Your task to perform on an android device: allow notifications from all sites in the chrome app Image 0: 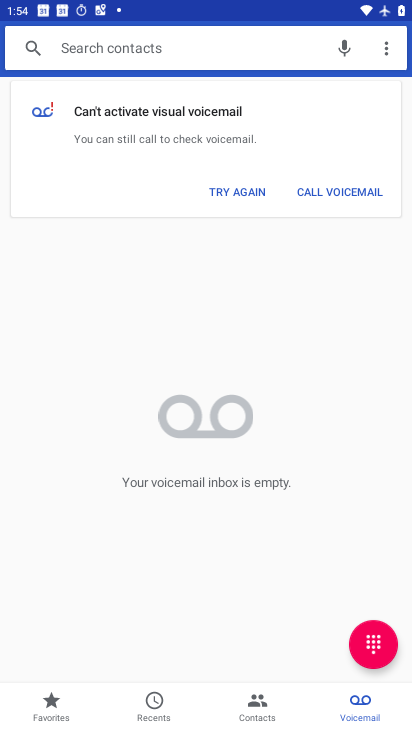
Step 0: press home button
Your task to perform on an android device: allow notifications from all sites in the chrome app Image 1: 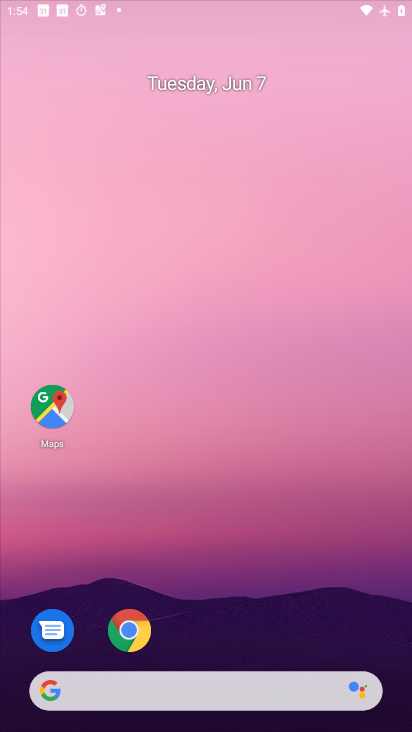
Step 1: drag from (342, 628) to (351, 27)
Your task to perform on an android device: allow notifications from all sites in the chrome app Image 2: 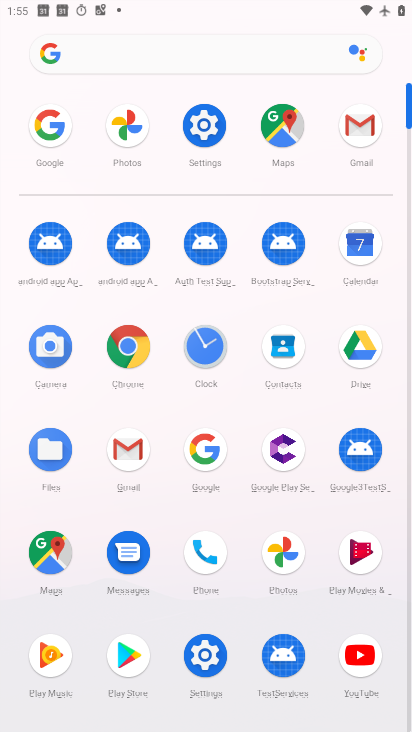
Step 2: click (141, 346)
Your task to perform on an android device: allow notifications from all sites in the chrome app Image 3: 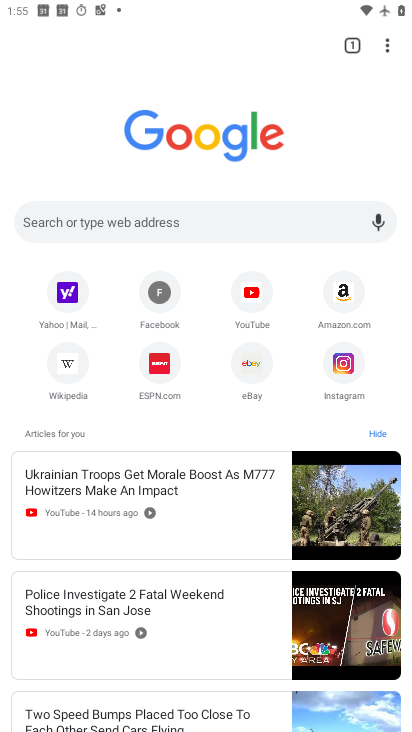
Step 3: click (385, 45)
Your task to perform on an android device: allow notifications from all sites in the chrome app Image 4: 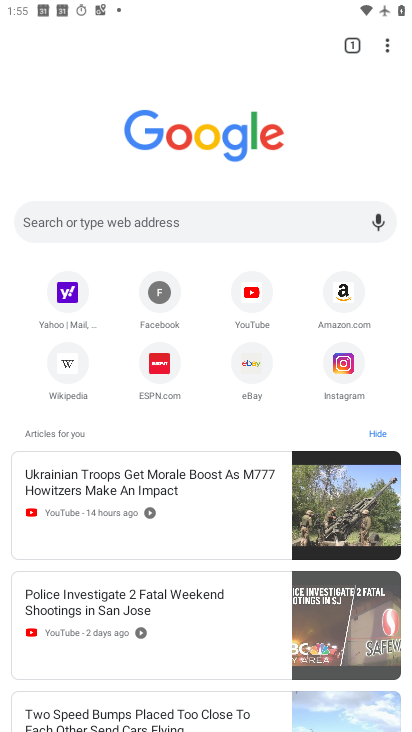
Step 4: click (389, 36)
Your task to perform on an android device: allow notifications from all sites in the chrome app Image 5: 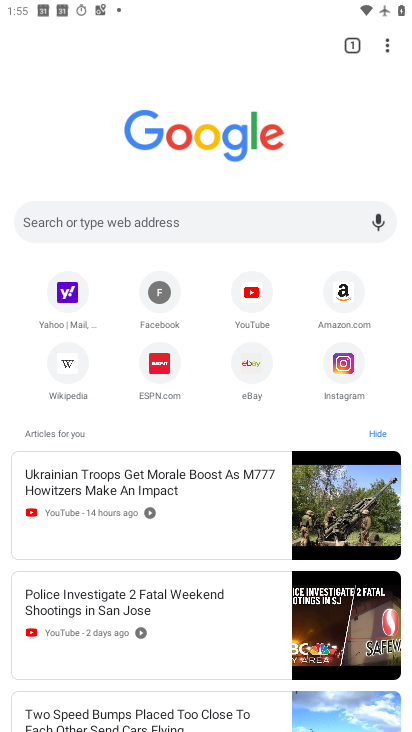
Step 5: click (390, 37)
Your task to perform on an android device: allow notifications from all sites in the chrome app Image 6: 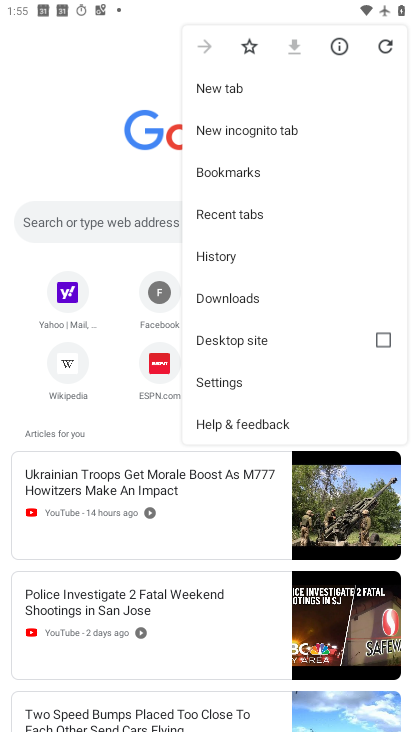
Step 6: click (217, 386)
Your task to perform on an android device: allow notifications from all sites in the chrome app Image 7: 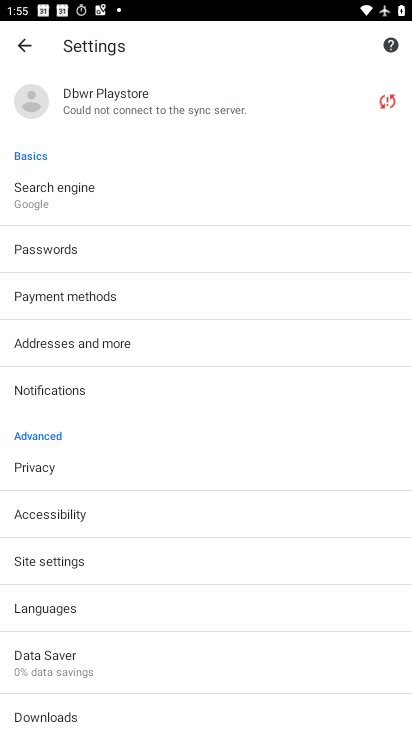
Step 7: click (106, 389)
Your task to perform on an android device: allow notifications from all sites in the chrome app Image 8: 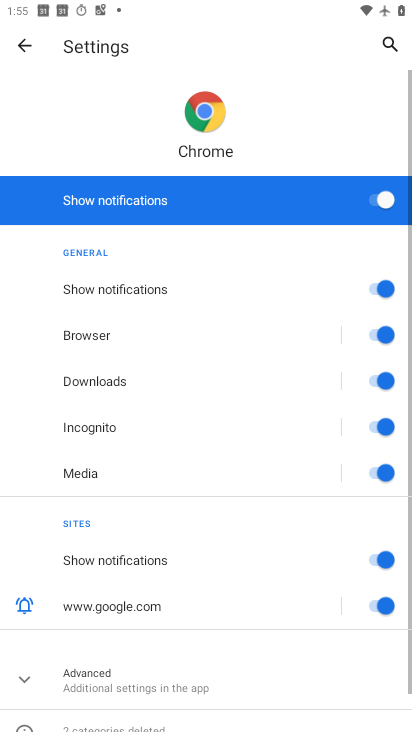
Step 8: task complete